Your task to perform on an android device: When is my next meeting? Image 0: 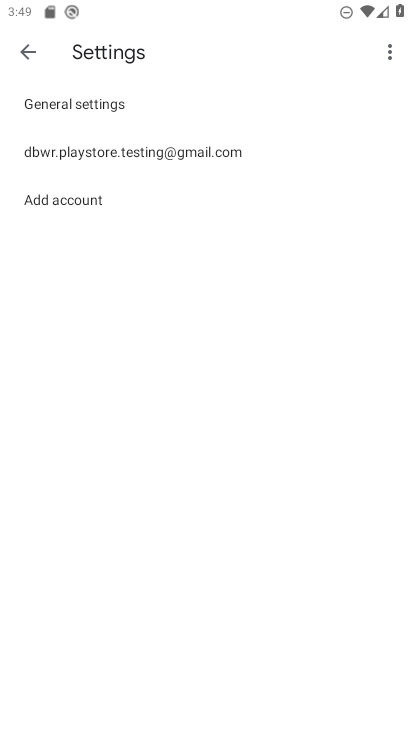
Step 0: press home button
Your task to perform on an android device: When is my next meeting? Image 1: 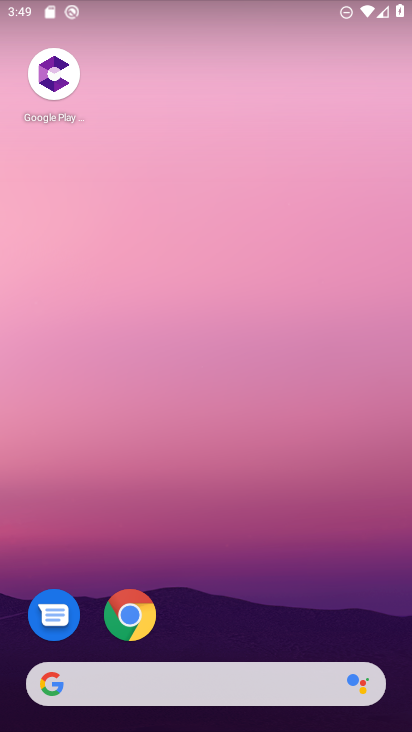
Step 1: drag from (242, 599) to (251, 41)
Your task to perform on an android device: When is my next meeting? Image 2: 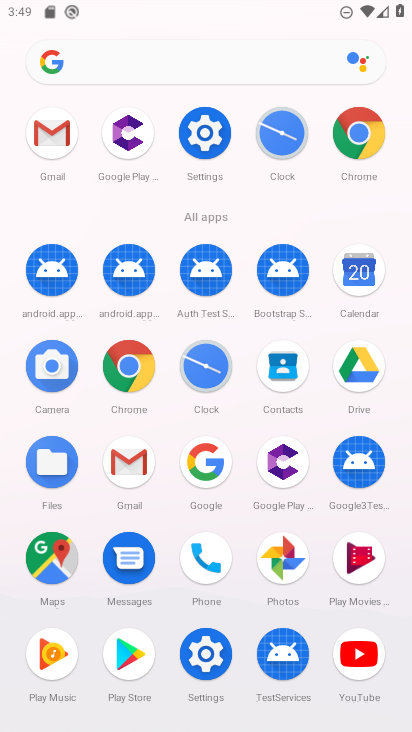
Step 2: click (353, 273)
Your task to perform on an android device: When is my next meeting? Image 3: 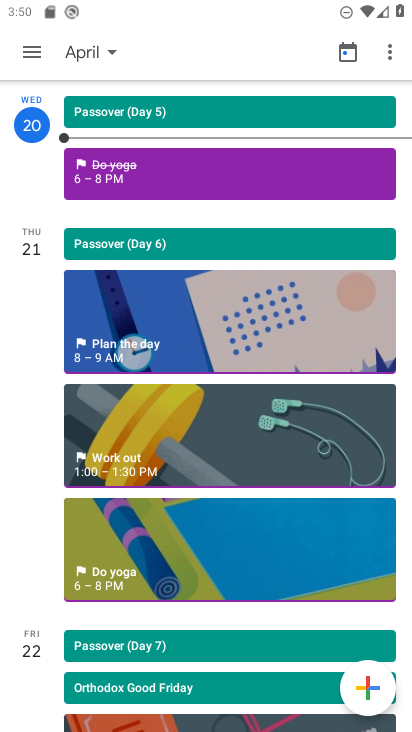
Step 3: task complete